Your task to perform on an android device: Go to eBay Image 0: 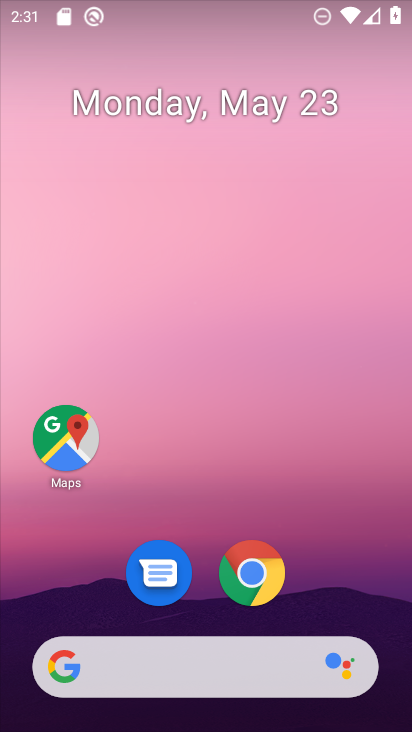
Step 0: click (245, 574)
Your task to perform on an android device: Go to eBay Image 1: 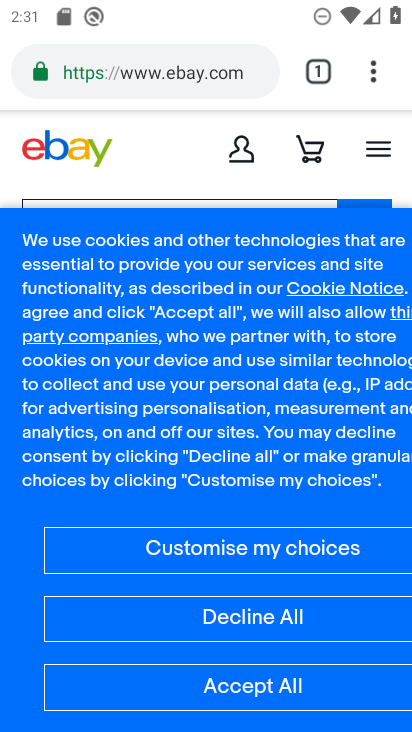
Step 1: task complete